Your task to perform on an android device: change the clock display to digital Image 0: 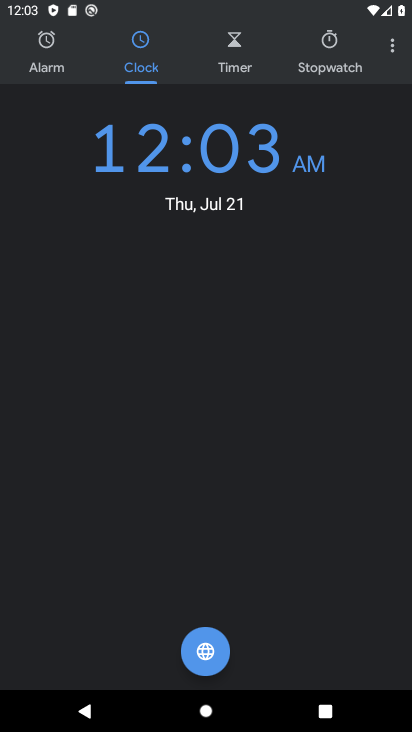
Step 0: press home button
Your task to perform on an android device: change the clock display to digital Image 1: 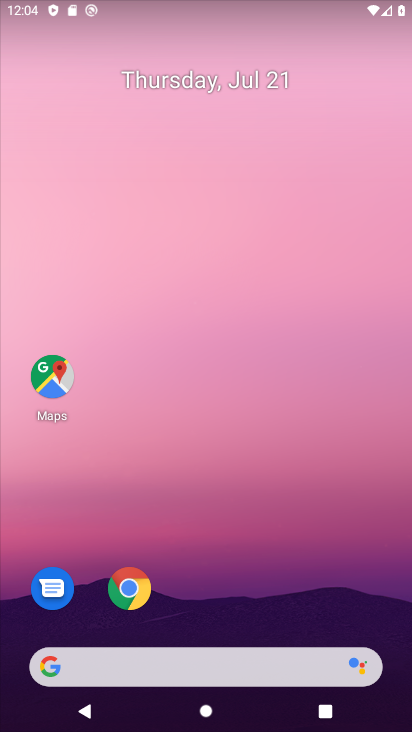
Step 1: drag from (265, 508) to (288, 102)
Your task to perform on an android device: change the clock display to digital Image 2: 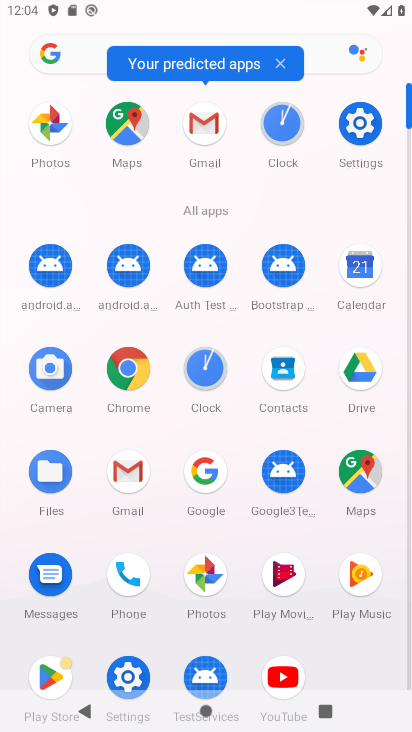
Step 2: click (284, 131)
Your task to perform on an android device: change the clock display to digital Image 3: 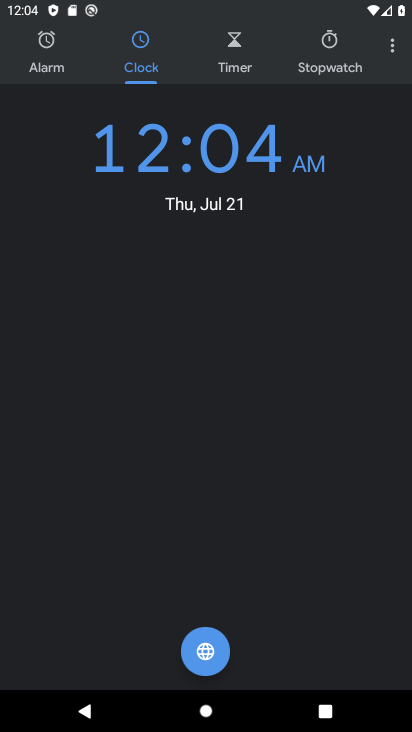
Step 3: click (394, 43)
Your task to perform on an android device: change the clock display to digital Image 4: 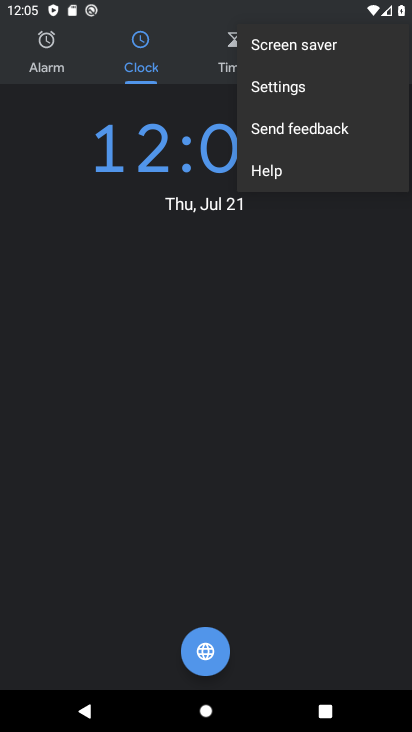
Step 4: click (297, 89)
Your task to perform on an android device: change the clock display to digital Image 5: 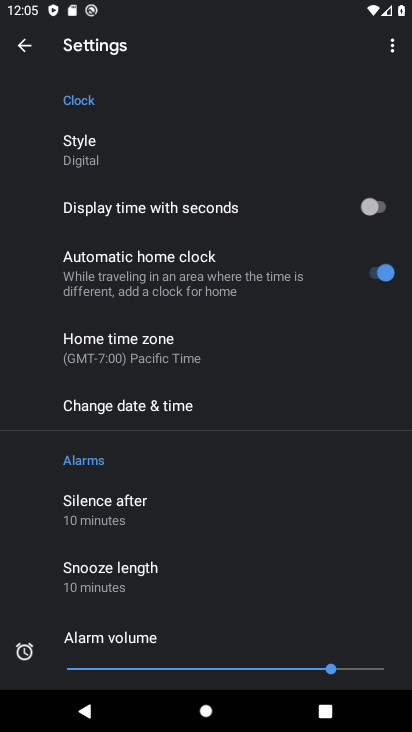
Step 5: task complete